Your task to perform on an android device: Go to display settings Image 0: 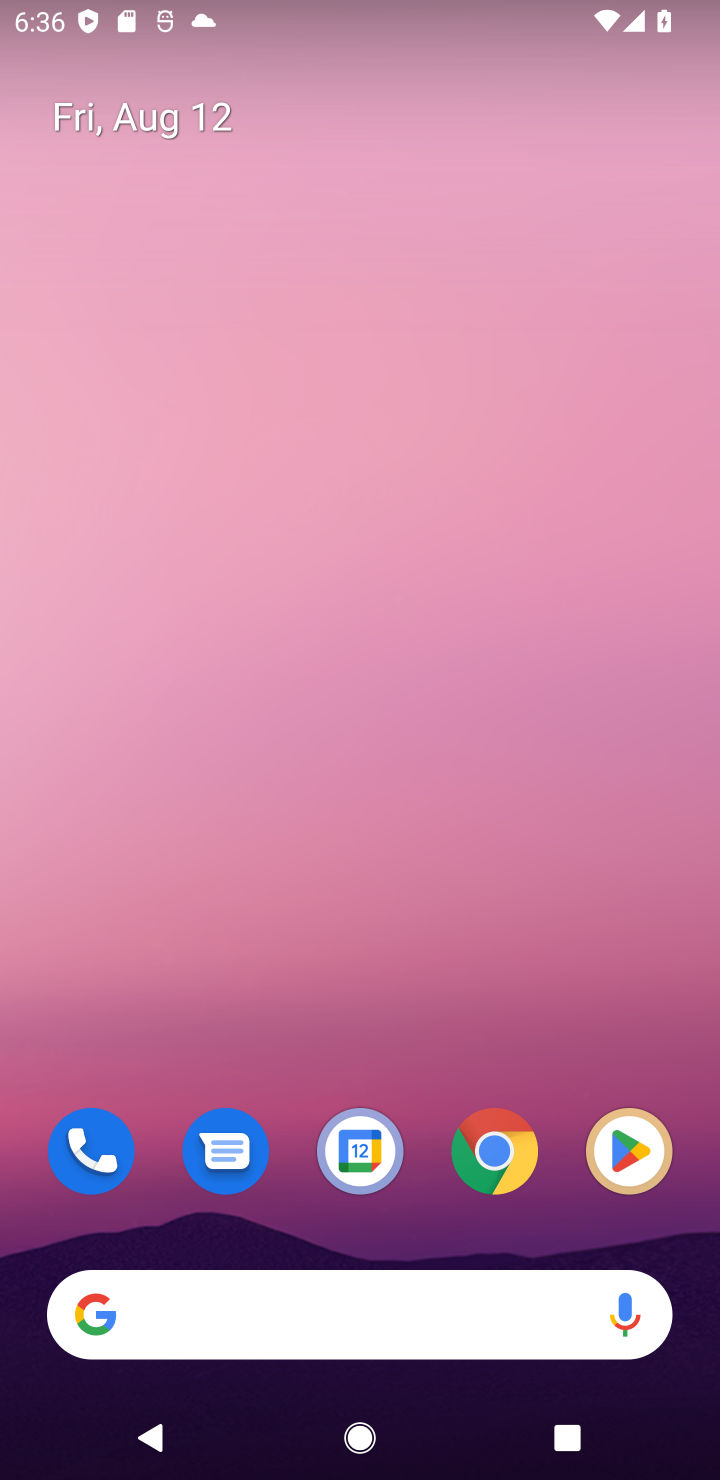
Step 0: drag from (386, 1013) to (386, 194)
Your task to perform on an android device: Go to display settings Image 1: 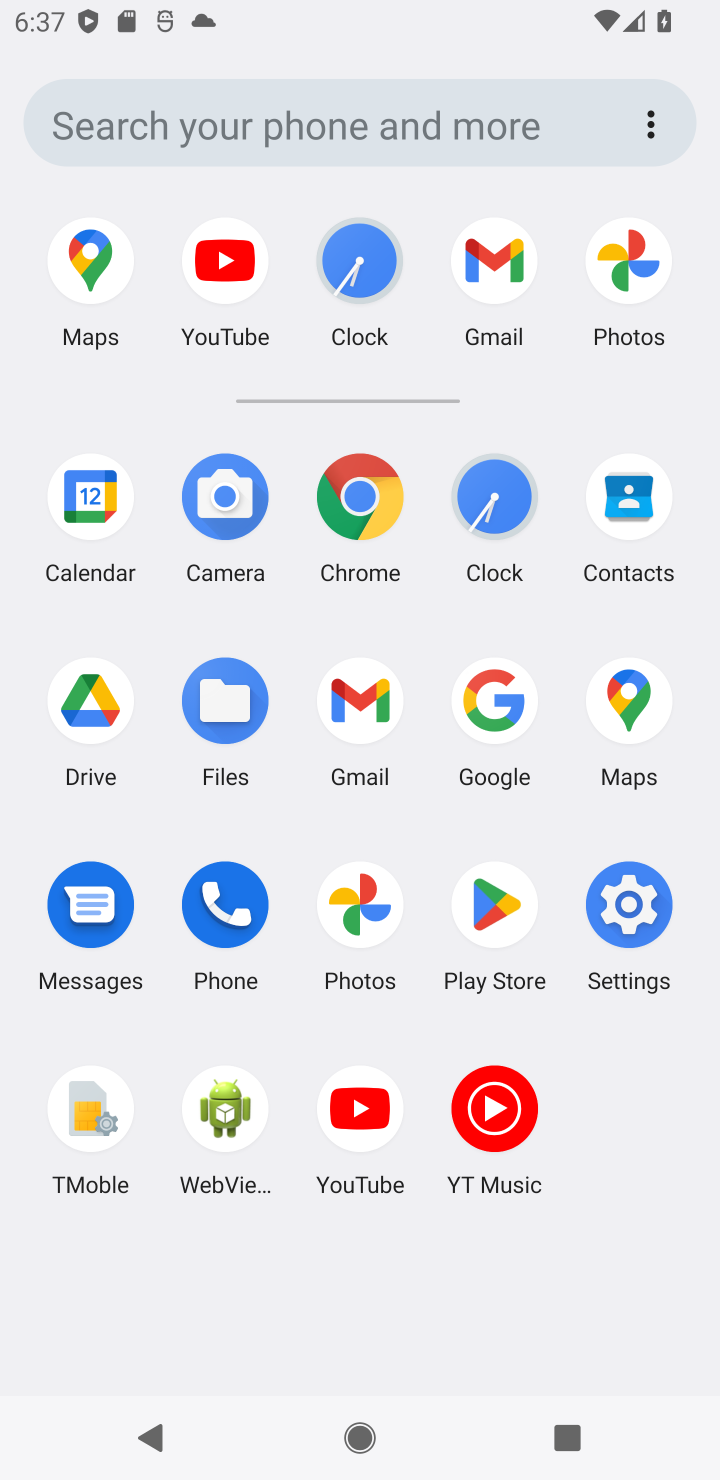
Step 1: click (628, 918)
Your task to perform on an android device: Go to display settings Image 2: 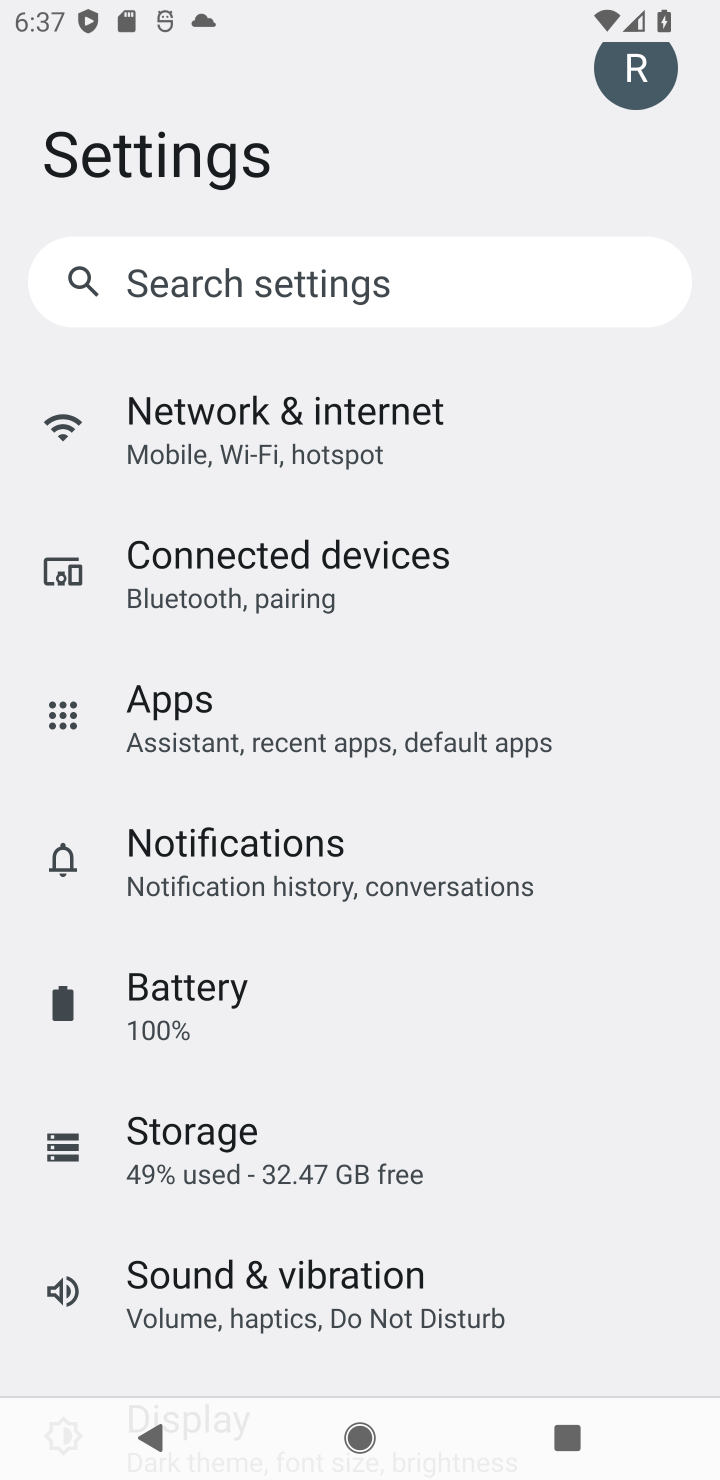
Step 2: drag from (472, 1192) to (554, 459)
Your task to perform on an android device: Go to display settings Image 3: 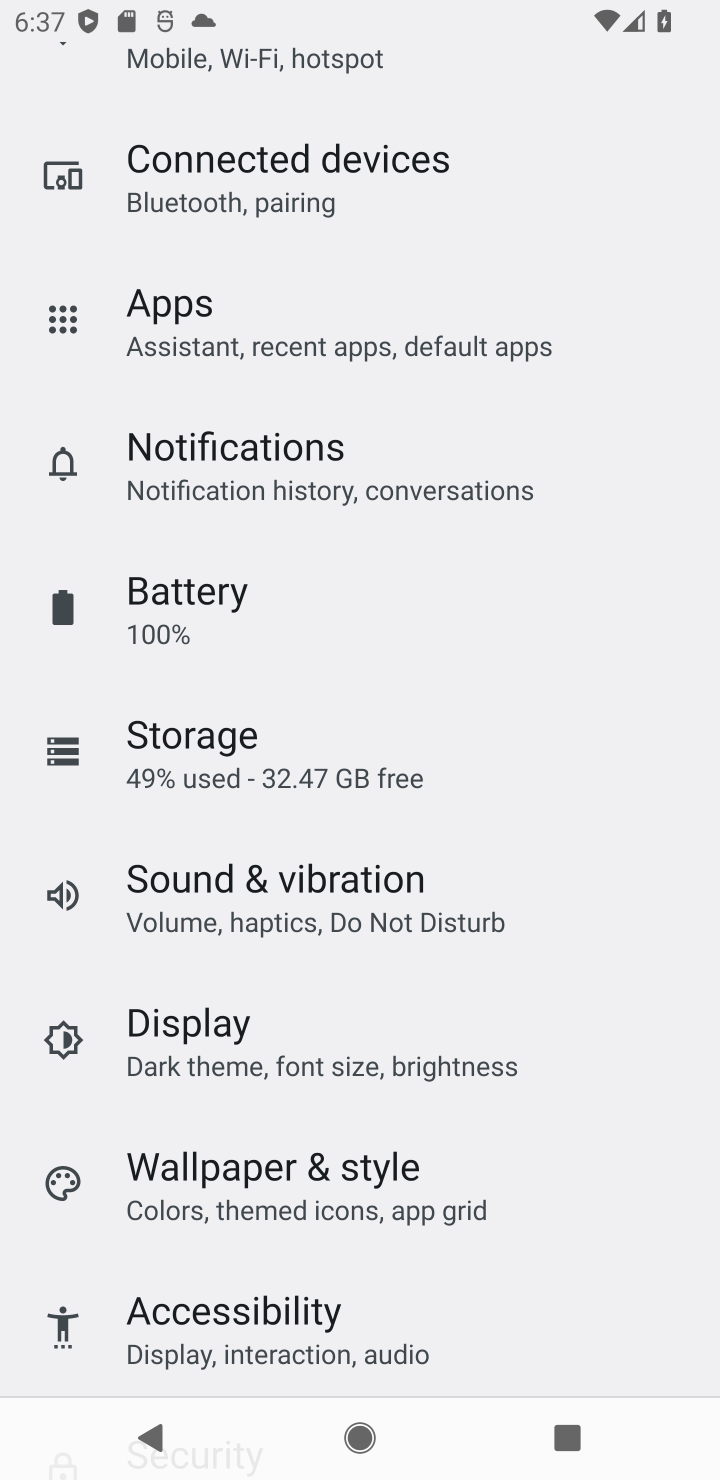
Step 3: click (188, 1014)
Your task to perform on an android device: Go to display settings Image 4: 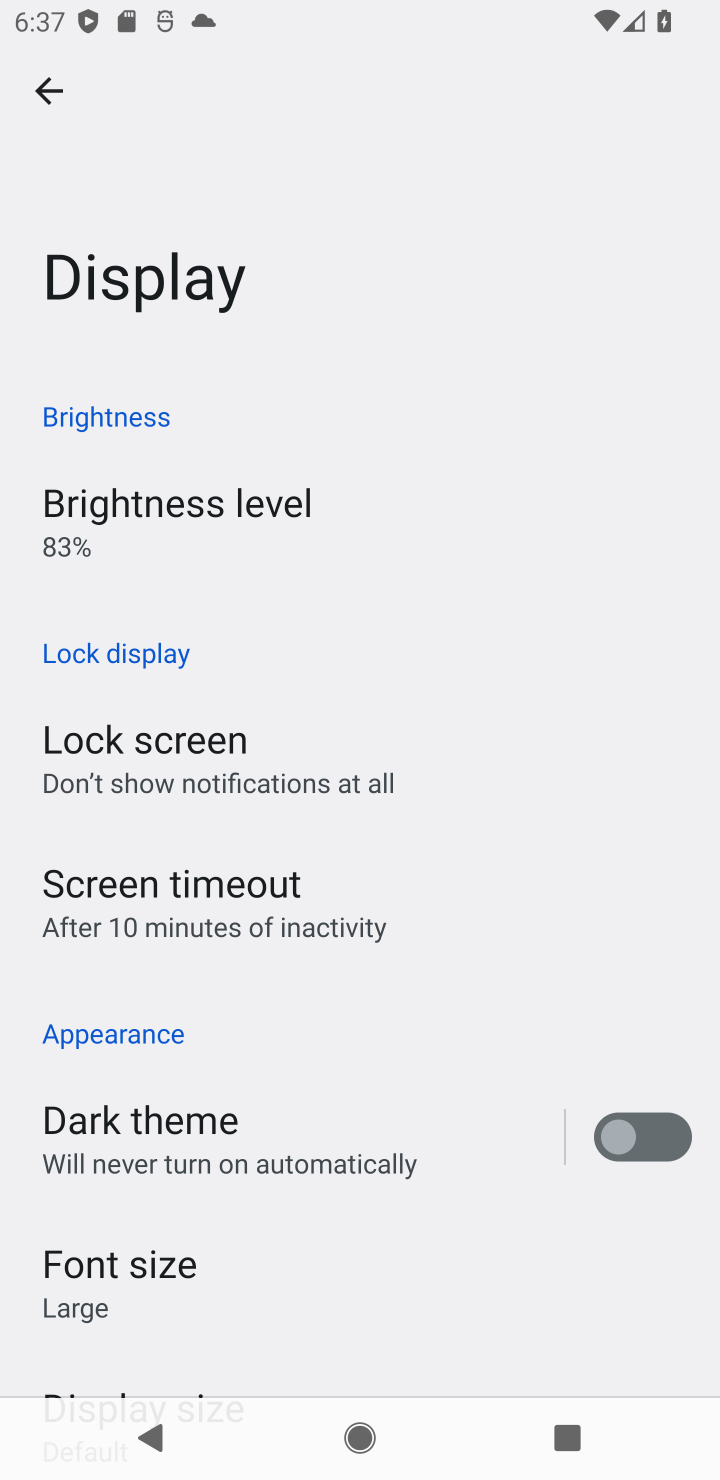
Step 4: task complete